Your task to perform on an android device: turn on priority inbox in the gmail app Image 0: 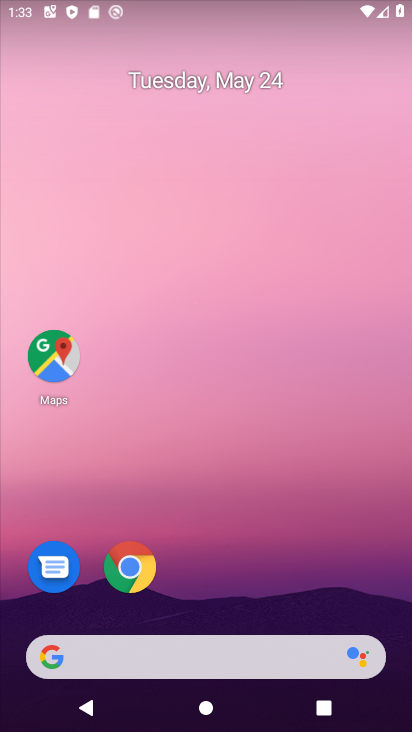
Step 0: drag from (164, 622) to (243, 97)
Your task to perform on an android device: turn on priority inbox in the gmail app Image 1: 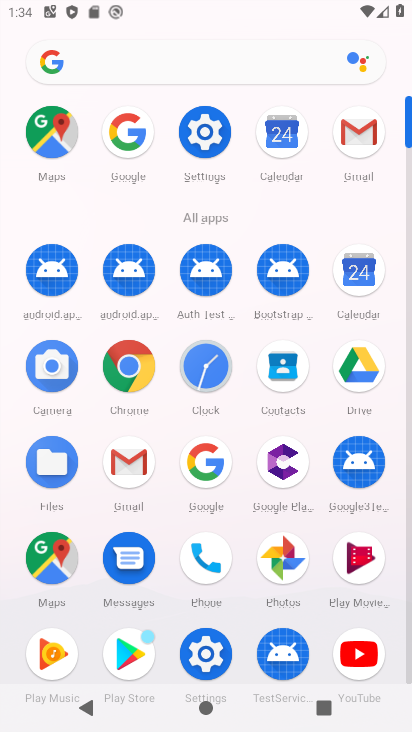
Step 1: click (141, 468)
Your task to perform on an android device: turn on priority inbox in the gmail app Image 2: 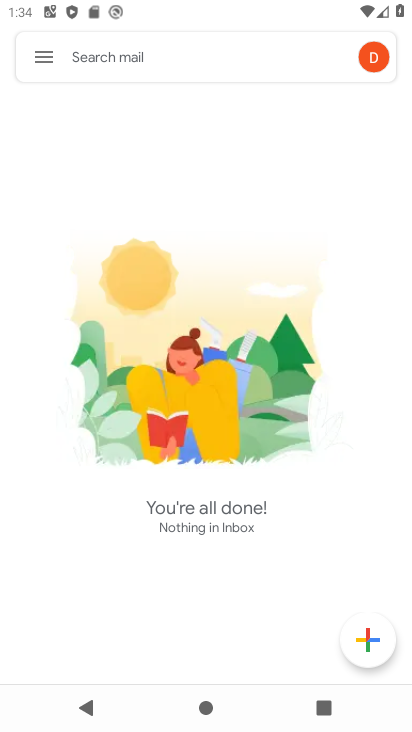
Step 2: click (43, 57)
Your task to perform on an android device: turn on priority inbox in the gmail app Image 3: 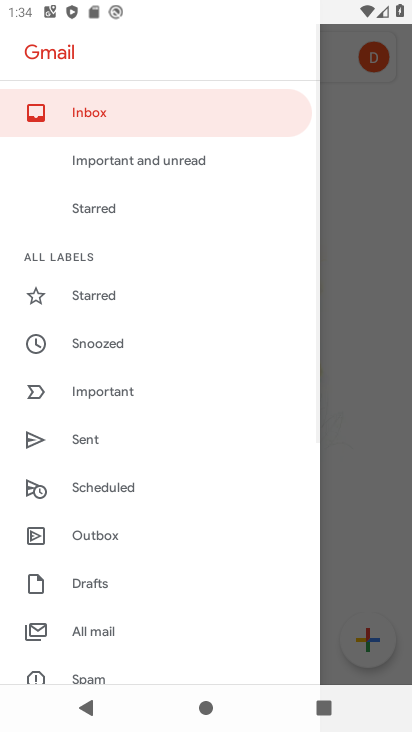
Step 3: drag from (131, 612) to (219, 231)
Your task to perform on an android device: turn on priority inbox in the gmail app Image 4: 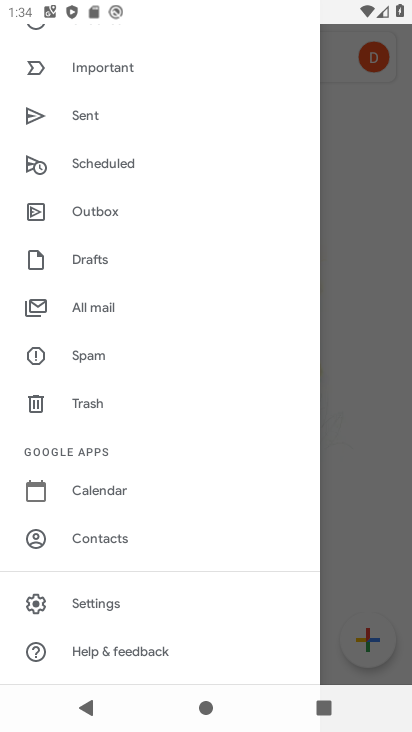
Step 4: click (124, 605)
Your task to perform on an android device: turn on priority inbox in the gmail app Image 5: 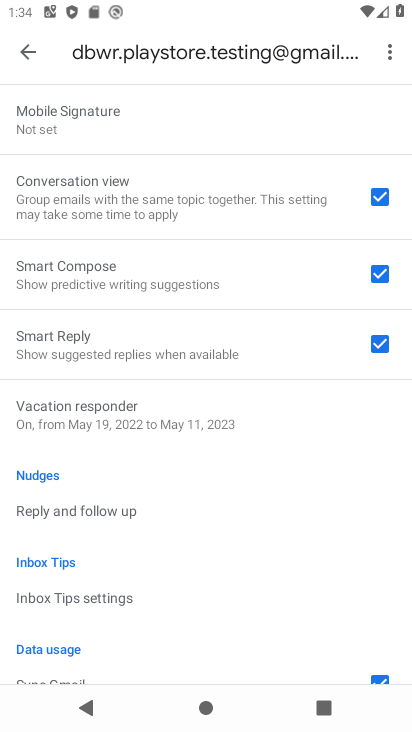
Step 5: task complete